Your task to perform on an android device: Open Google Maps and go to "Timeline" Image 0: 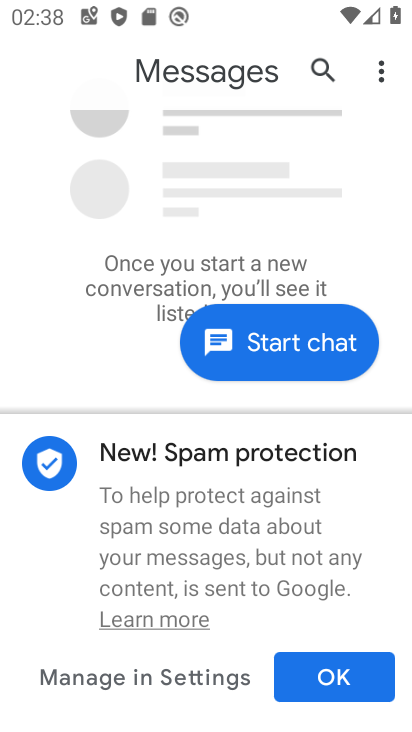
Step 0: press back button
Your task to perform on an android device: Open Google Maps and go to "Timeline" Image 1: 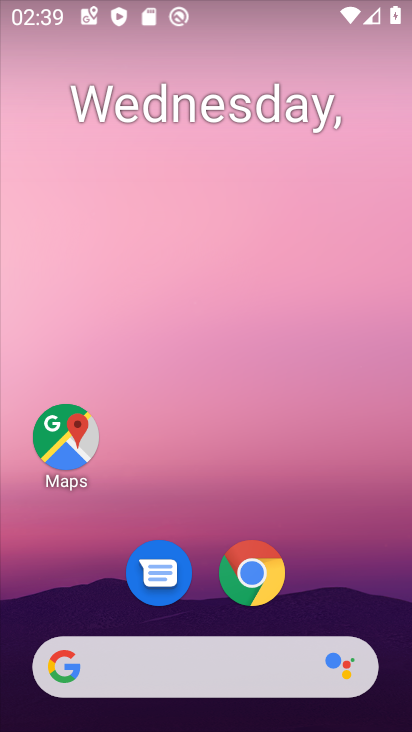
Step 1: drag from (328, 586) to (210, 70)
Your task to perform on an android device: Open Google Maps and go to "Timeline" Image 2: 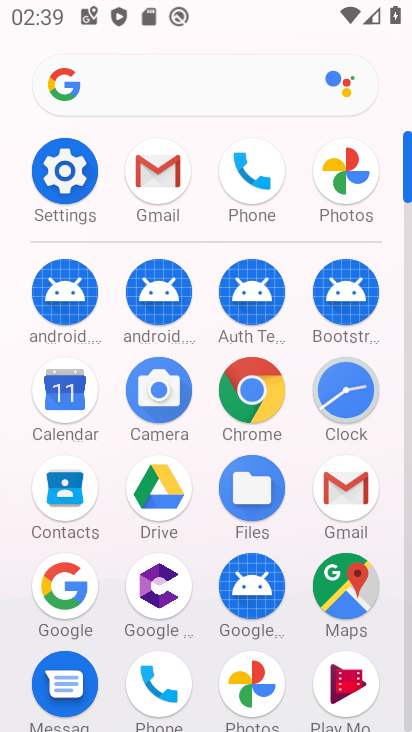
Step 2: click (348, 585)
Your task to perform on an android device: Open Google Maps and go to "Timeline" Image 3: 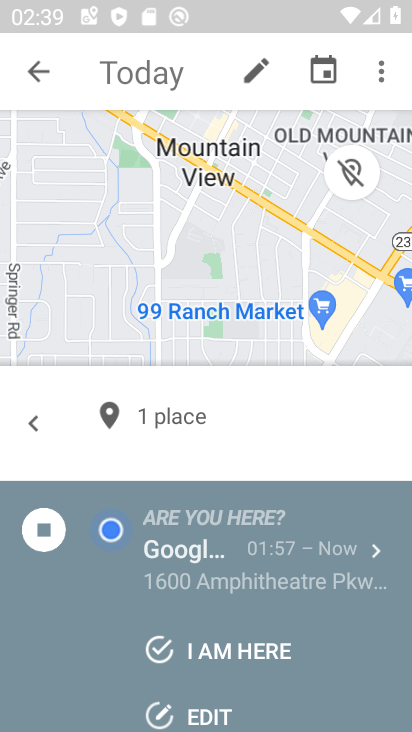
Step 3: task complete